Your task to perform on an android device: When is my next appointment? Image 0: 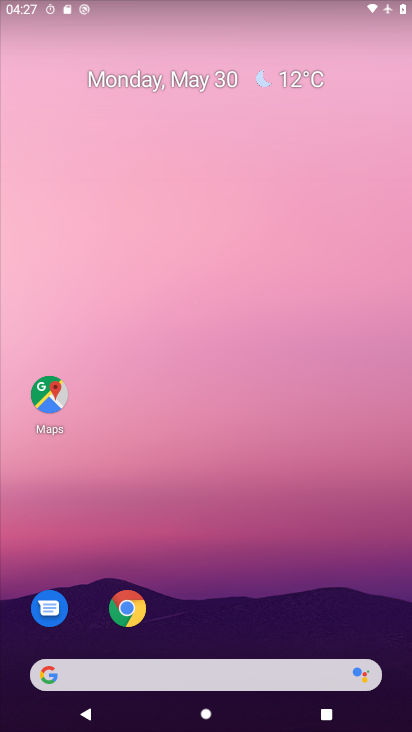
Step 0: click (159, 79)
Your task to perform on an android device: When is my next appointment? Image 1: 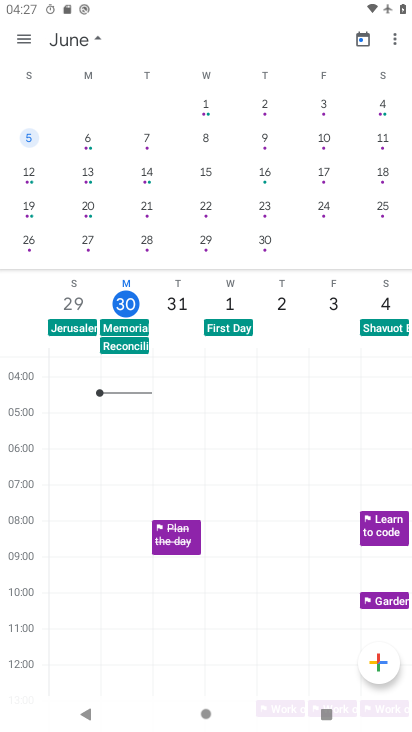
Step 1: task complete